Your task to perform on an android device: Open the map Image 0: 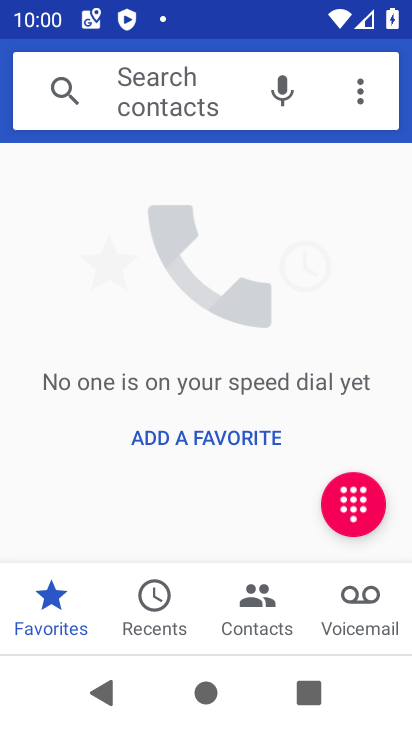
Step 0: press home button
Your task to perform on an android device: Open the map Image 1: 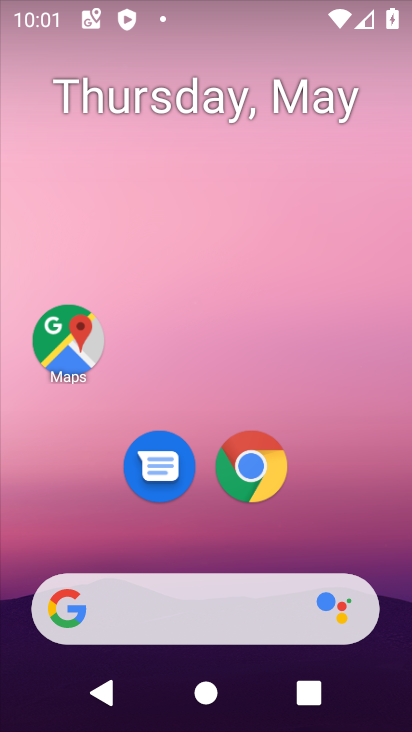
Step 1: click (62, 330)
Your task to perform on an android device: Open the map Image 2: 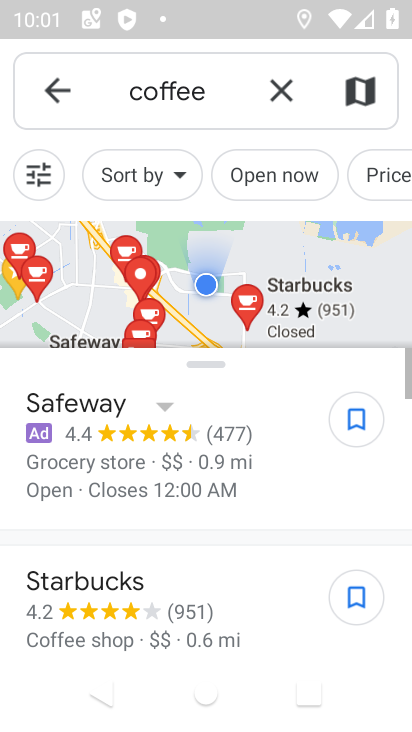
Step 2: click (280, 77)
Your task to perform on an android device: Open the map Image 3: 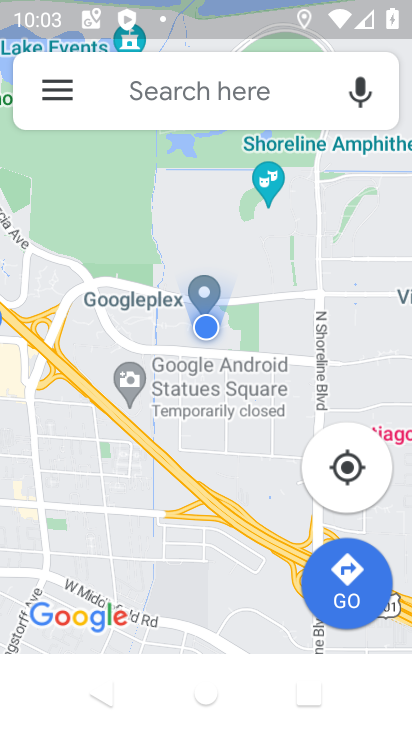
Step 3: task complete